Your task to perform on an android device: Show the shopping cart on costco. Image 0: 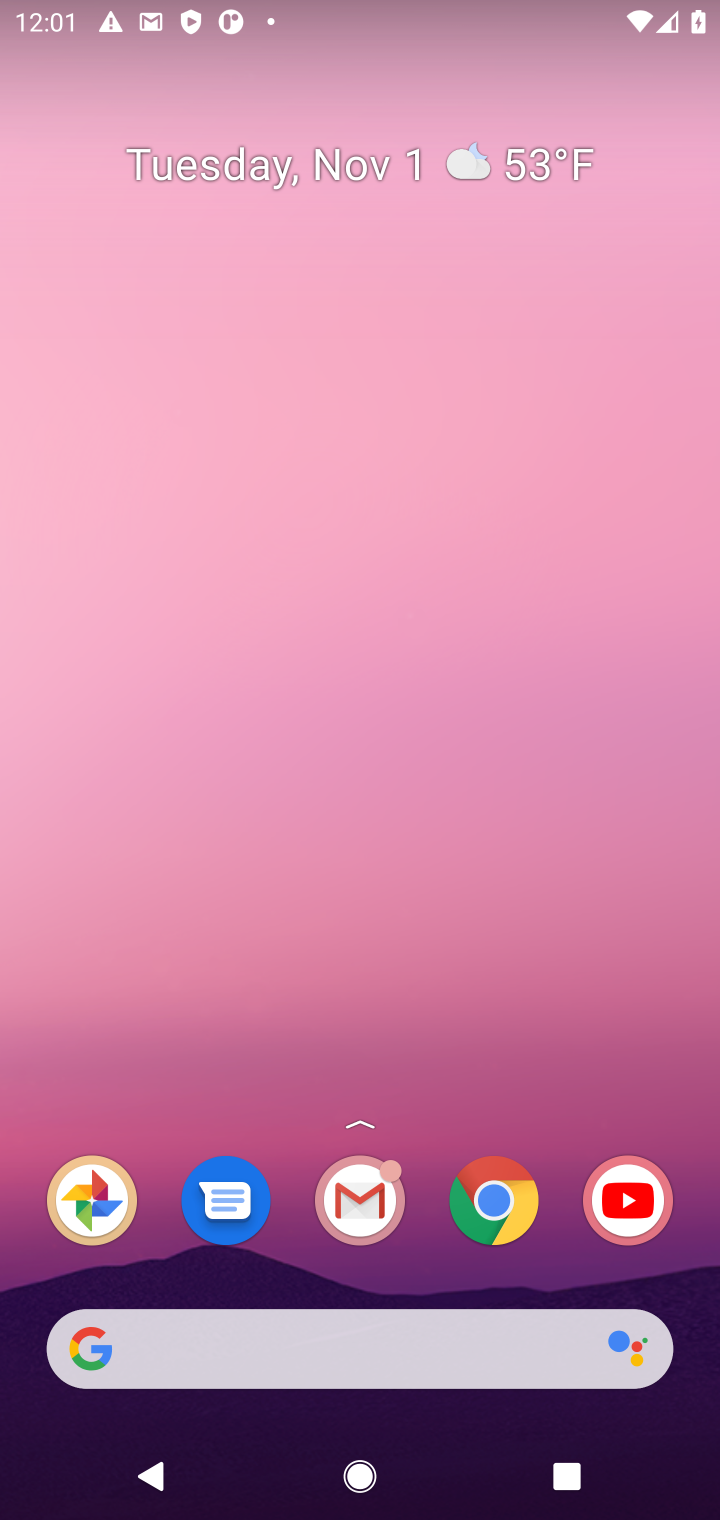
Step 0: click (506, 1193)
Your task to perform on an android device: Show the shopping cart on costco. Image 1: 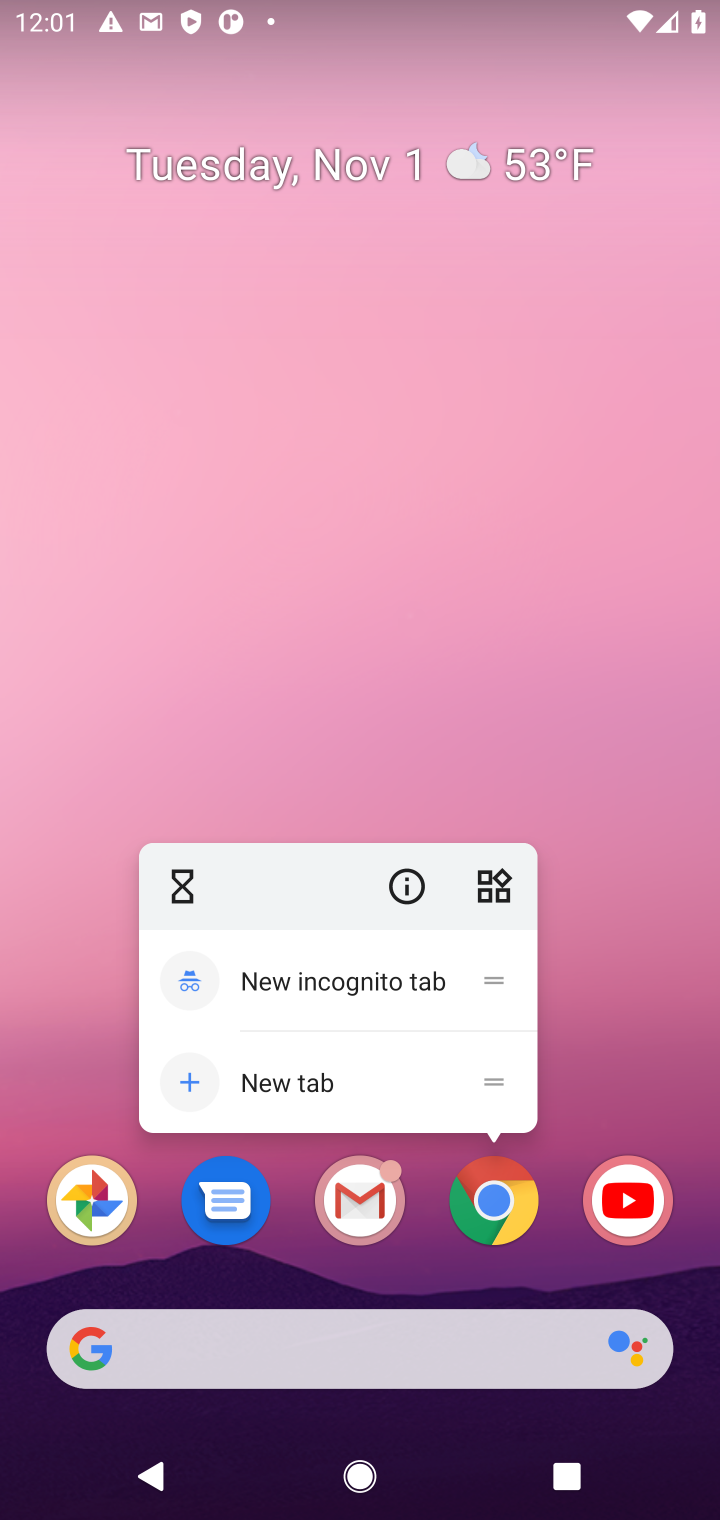
Step 1: click (497, 1205)
Your task to perform on an android device: Show the shopping cart on costco. Image 2: 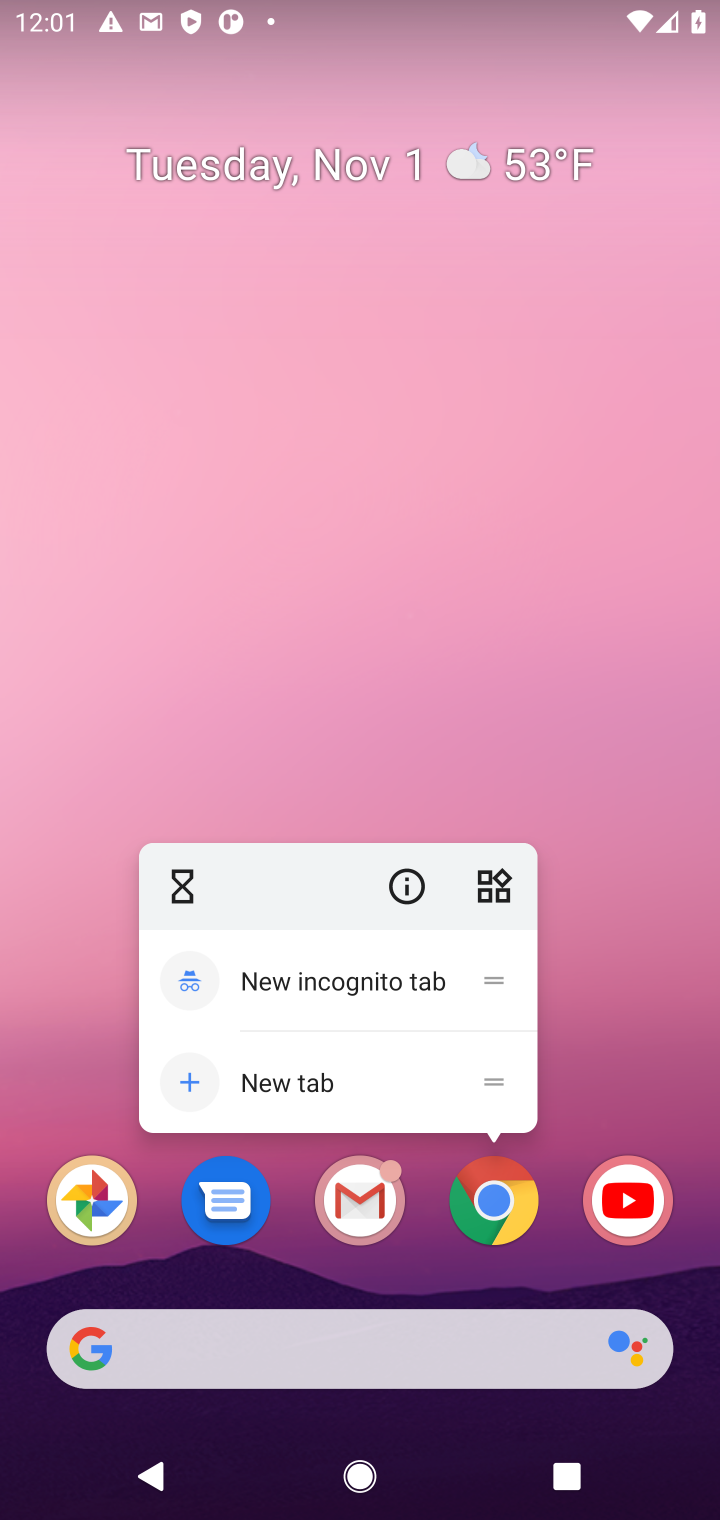
Step 2: click (497, 1231)
Your task to perform on an android device: Show the shopping cart on costco. Image 3: 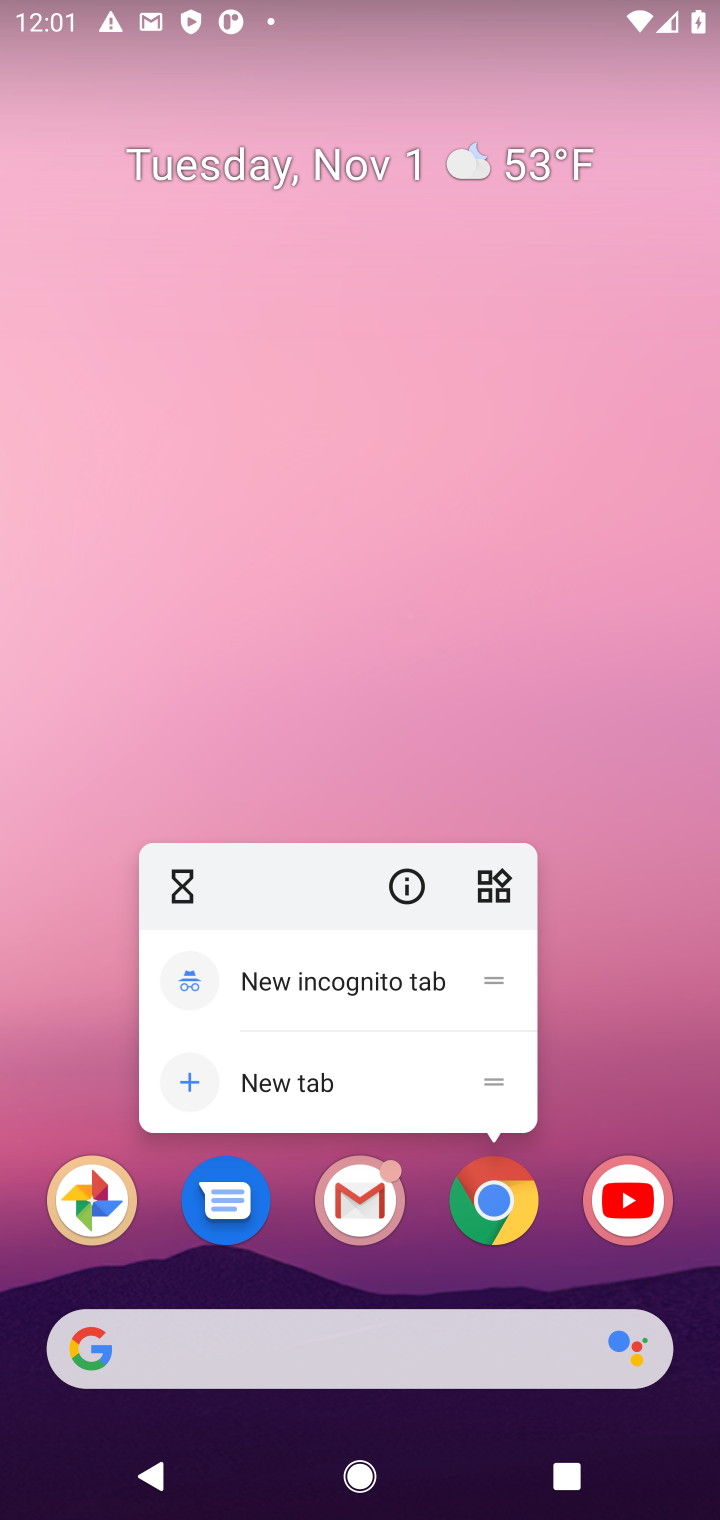
Step 3: click (498, 1223)
Your task to perform on an android device: Show the shopping cart on costco. Image 4: 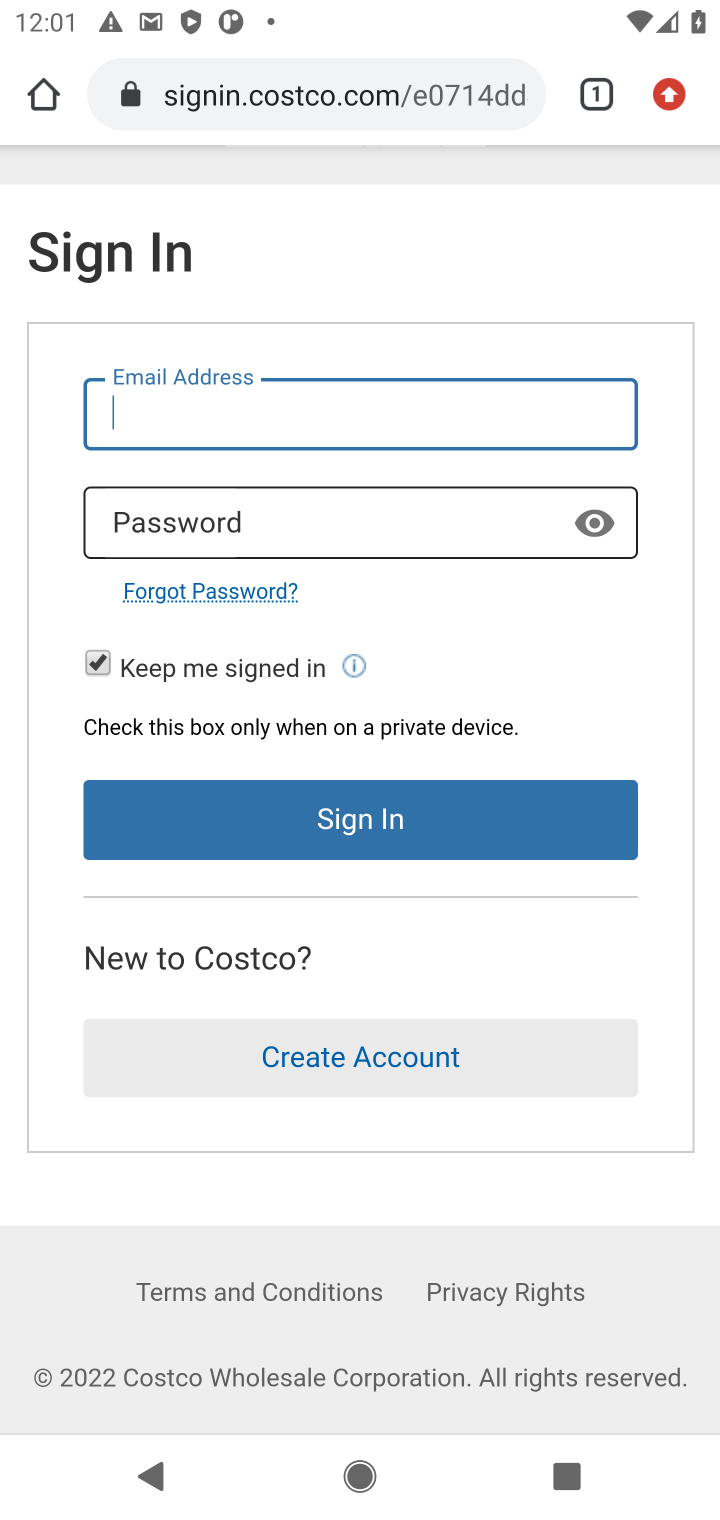
Step 4: click (334, 94)
Your task to perform on an android device: Show the shopping cart on costco. Image 5: 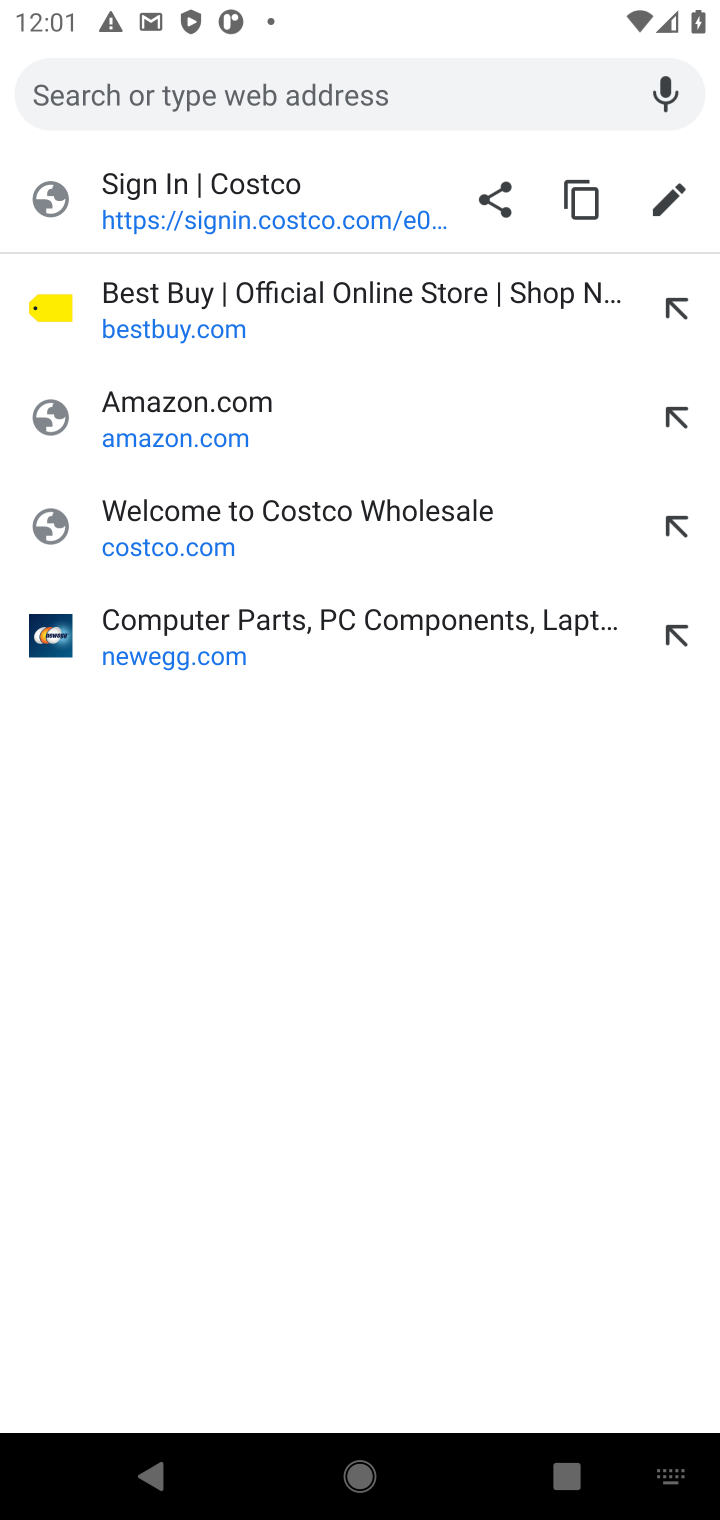
Step 5: click (274, 534)
Your task to perform on an android device: Show the shopping cart on costco. Image 6: 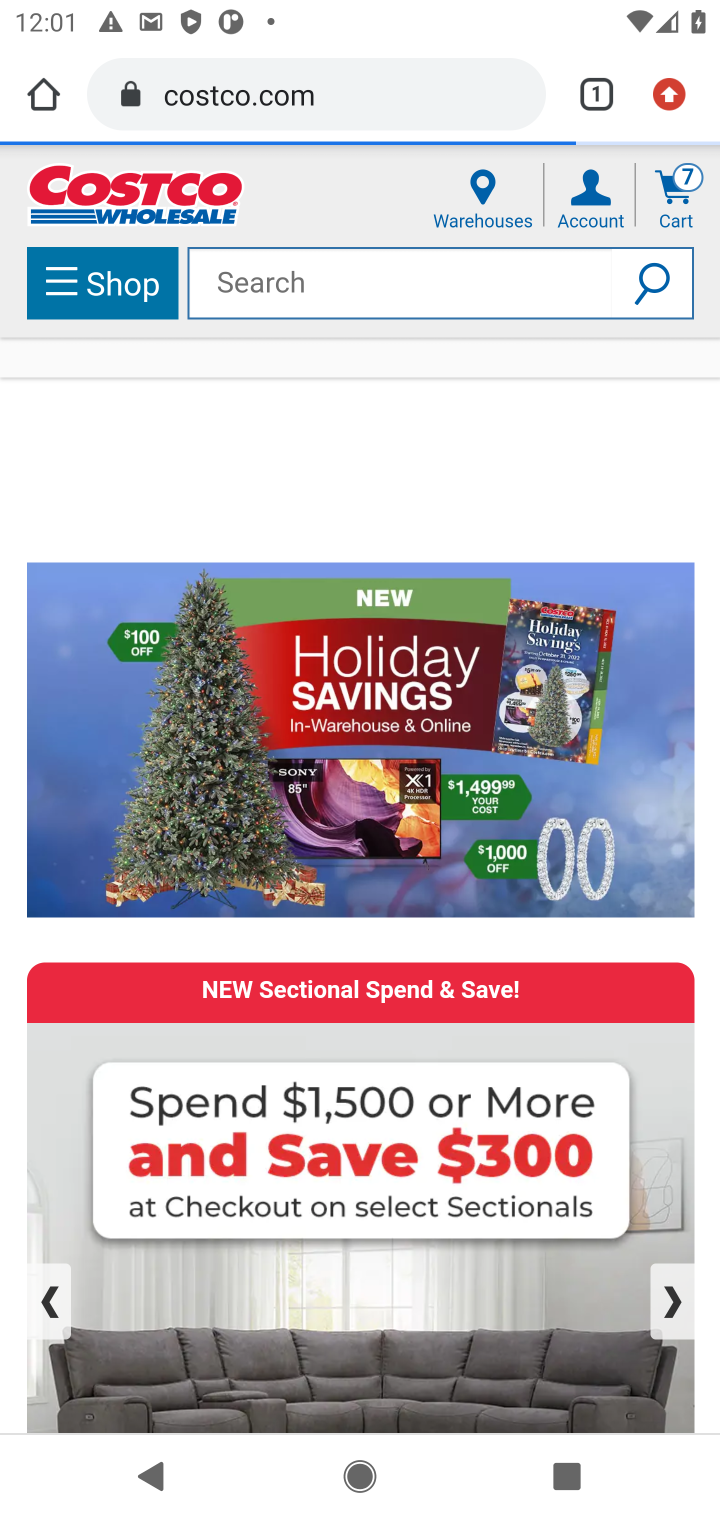
Step 6: click (682, 184)
Your task to perform on an android device: Show the shopping cart on costco. Image 7: 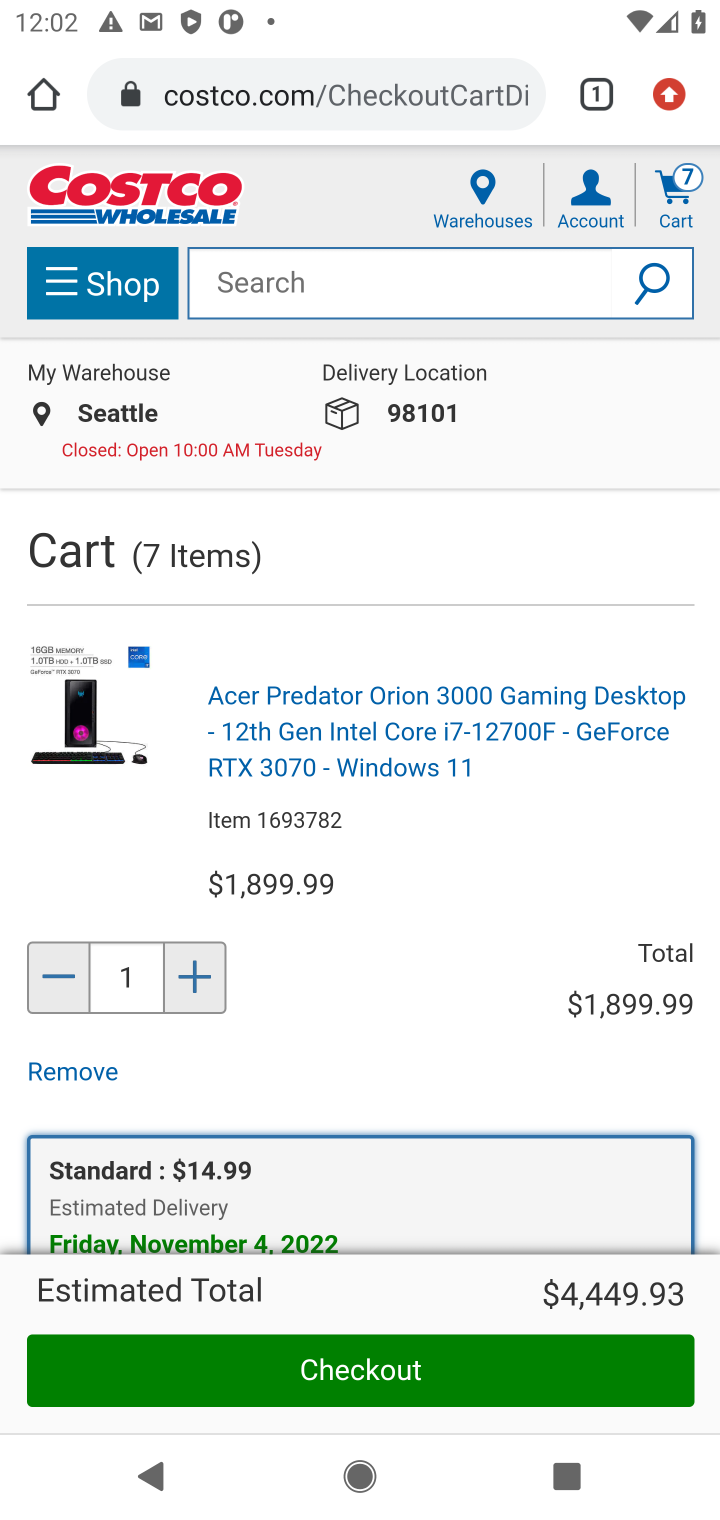
Step 7: click (360, 1398)
Your task to perform on an android device: Show the shopping cart on costco. Image 8: 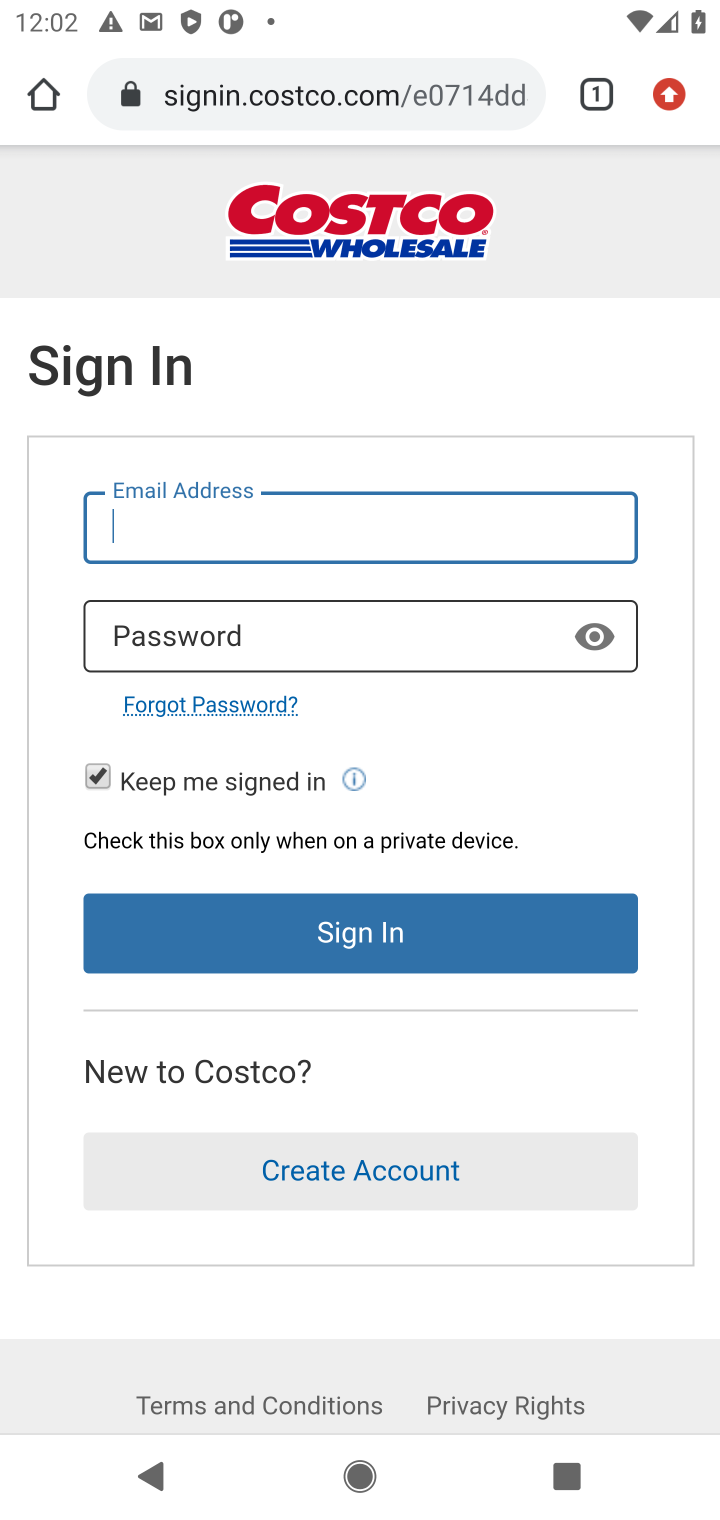
Step 8: task complete